Your task to perform on an android device: turn off picture-in-picture Image 0: 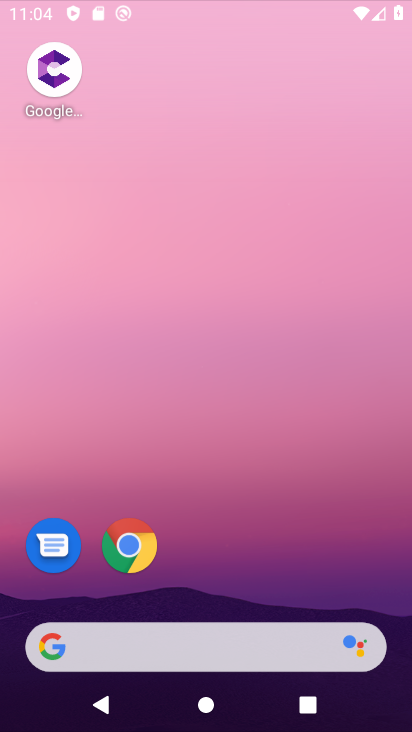
Step 0: press home button
Your task to perform on an android device: turn off picture-in-picture Image 1: 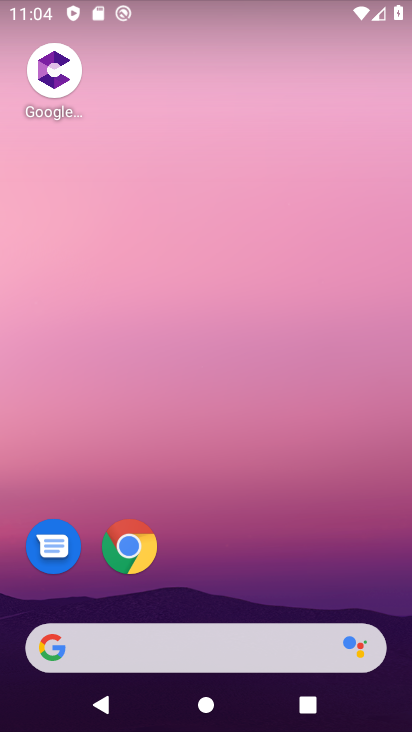
Step 1: click (146, 552)
Your task to perform on an android device: turn off picture-in-picture Image 2: 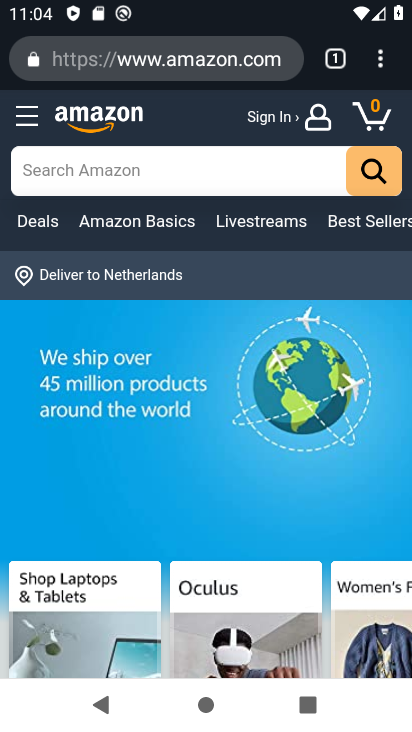
Step 2: press home button
Your task to perform on an android device: turn off picture-in-picture Image 3: 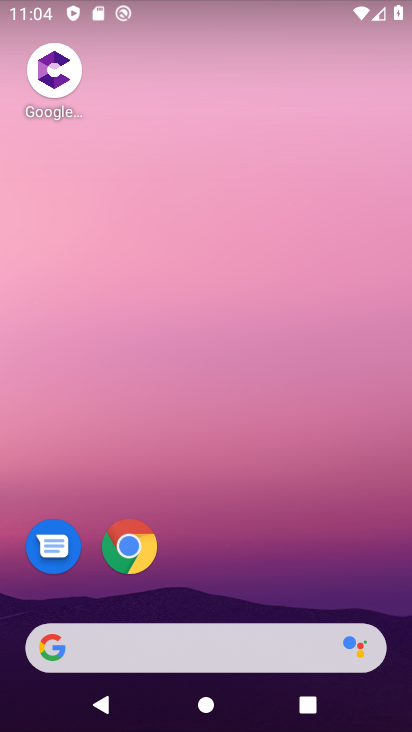
Step 3: click (112, 545)
Your task to perform on an android device: turn off picture-in-picture Image 4: 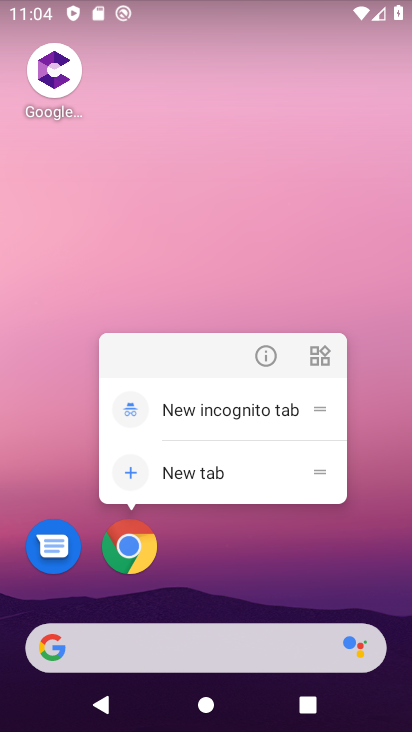
Step 4: click (279, 354)
Your task to perform on an android device: turn off picture-in-picture Image 5: 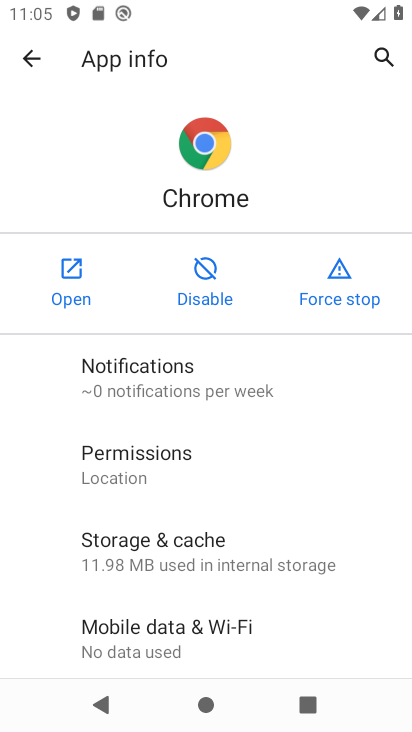
Step 5: drag from (247, 620) to (326, 30)
Your task to perform on an android device: turn off picture-in-picture Image 6: 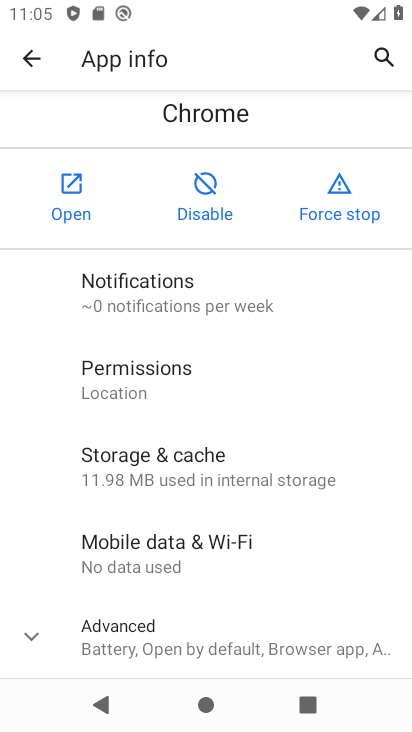
Step 6: drag from (202, 525) to (112, 267)
Your task to perform on an android device: turn off picture-in-picture Image 7: 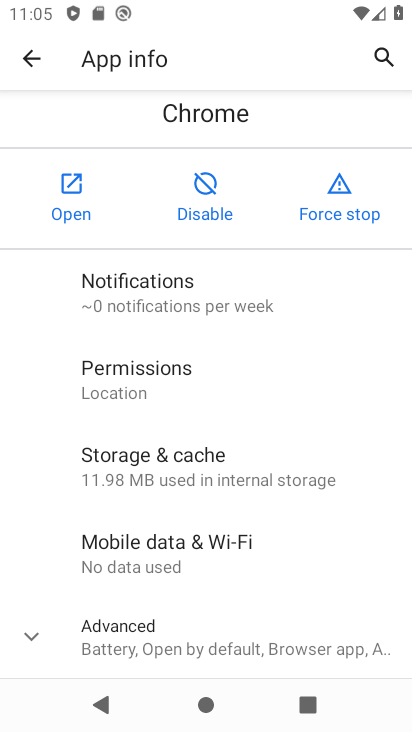
Step 7: click (124, 604)
Your task to perform on an android device: turn off picture-in-picture Image 8: 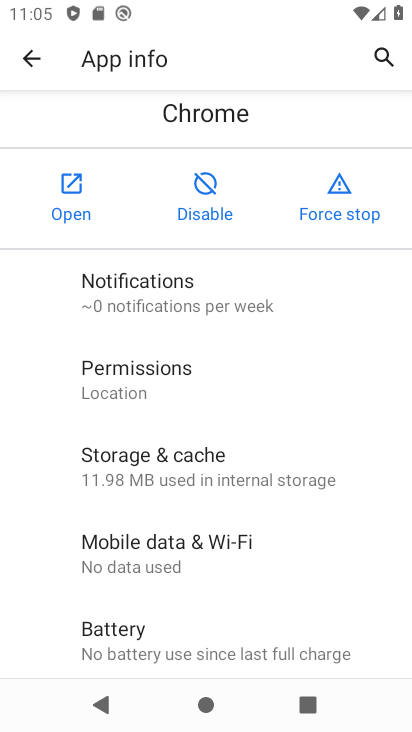
Step 8: drag from (174, 623) to (69, 398)
Your task to perform on an android device: turn off picture-in-picture Image 9: 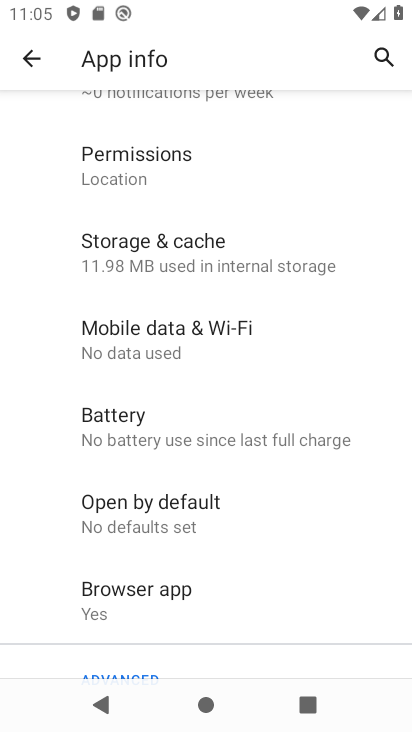
Step 9: drag from (308, 629) to (269, 352)
Your task to perform on an android device: turn off picture-in-picture Image 10: 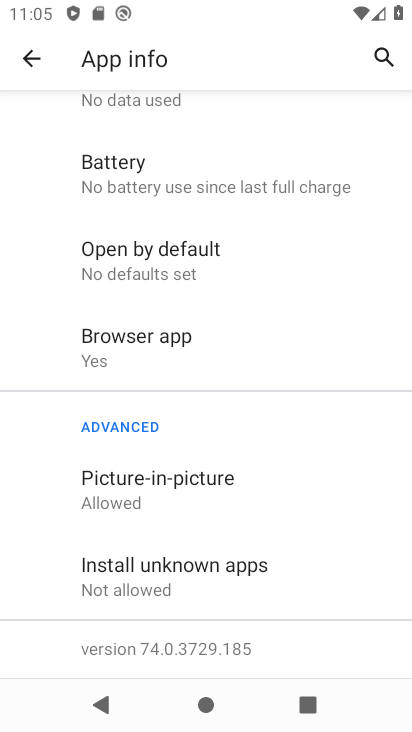
Step 10: click (207, 486)
Your task to perform on an android device: turn off picture-in-picture Image 11: 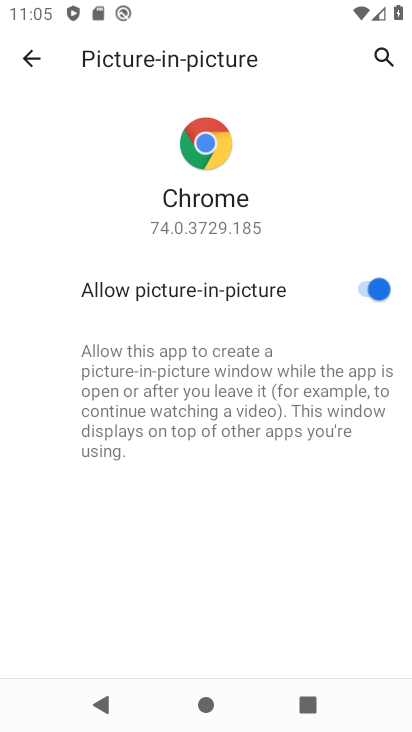
Step 11: click (361, 292)
Your task to perform on an android device: turn off picture-in-picture Image 12: 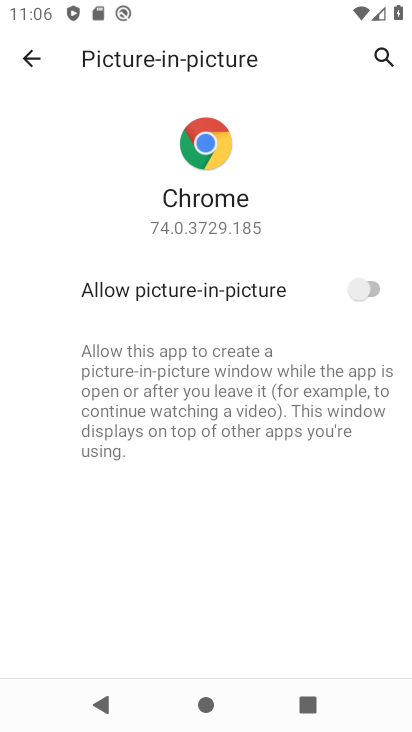
Step 12: task complete